Your task to perform on an android device: turn on the 24-hour format for clock Image 0: 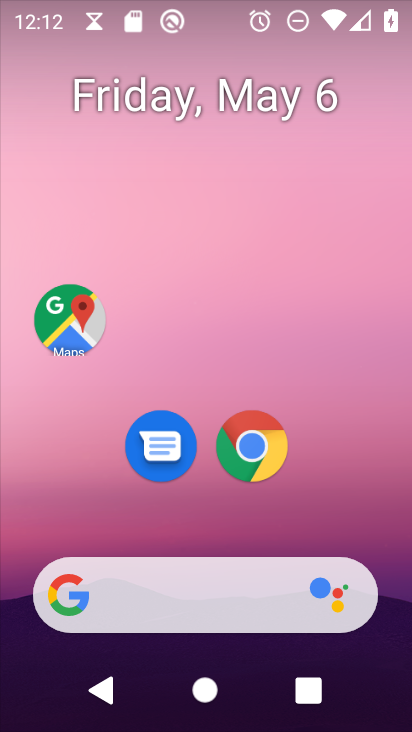
Step 0: drag from (212, 640) to (259, 201)
Your task to perform on an android device: turn on the 24-hour format for clock Image 1: 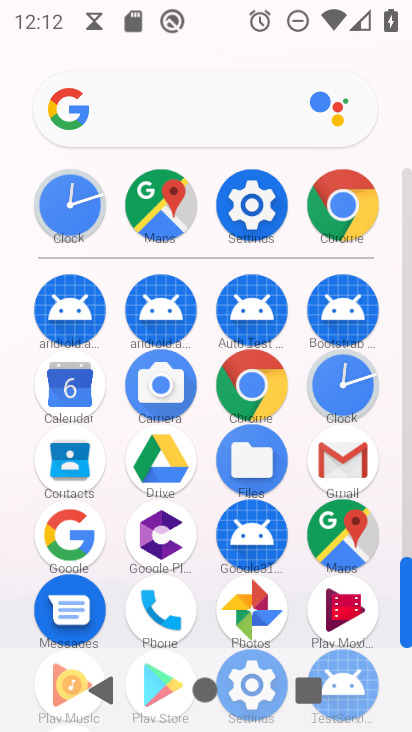
Step 1: click (350, 381)
Your task to perform on an android device: turn on the 24-hour format for clock Image 2: 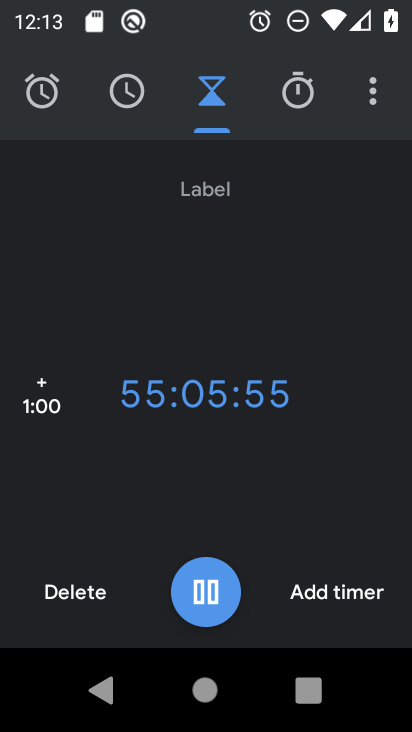
Step 2: click (374, 105)
Your task to perform on an android device: turn on the 24-hour format for clock Image 3: 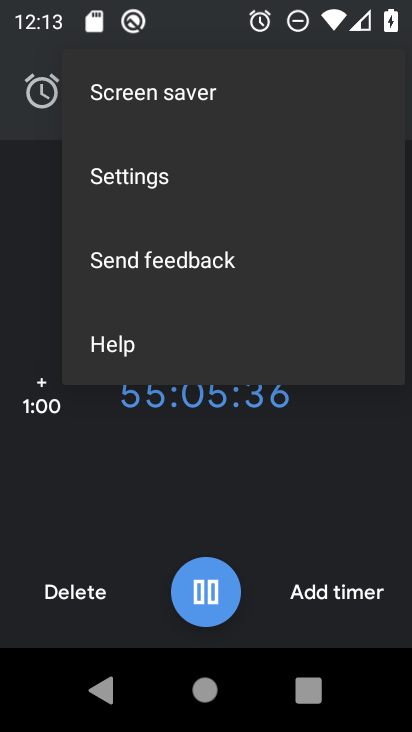
Step 3: click (208, 187)
Your task to perform on an android device: turn on the 24-hour format for clock Image 4: 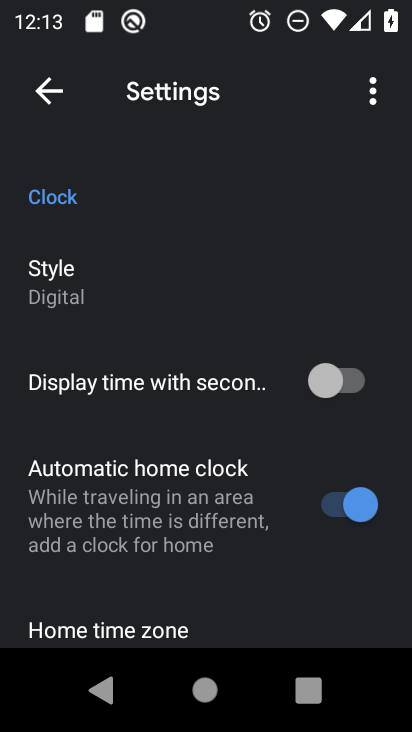
Step 4: drag from (141, 529) to (232, 219)
Your task to perform on an android device: turn on the 24-hour format for clock Image 5: 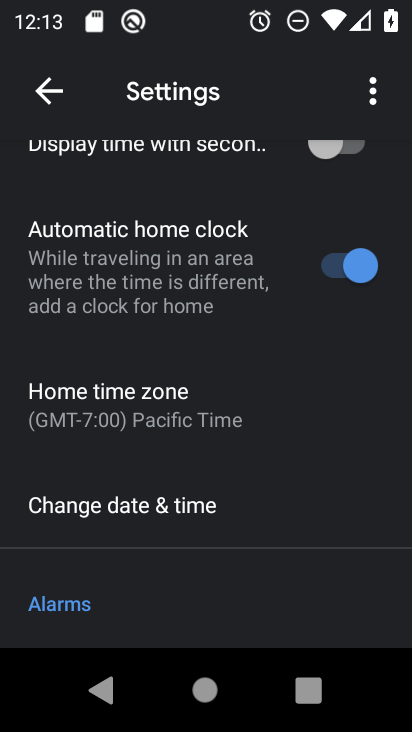
Step 5: click (212, 508)
Your task to perform on an android device: turn on the 24-hour format for clock Image 6: 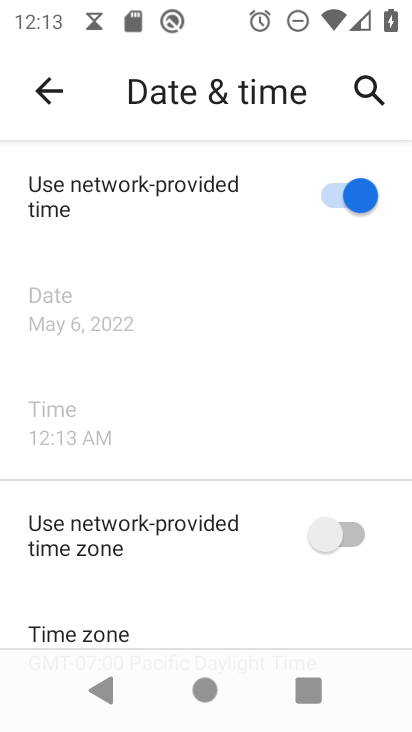
Step 6: drag from (165, 560) to (181, 421)
Your task to perform on an android device: turn on the 24-hour format for clock Image 7: 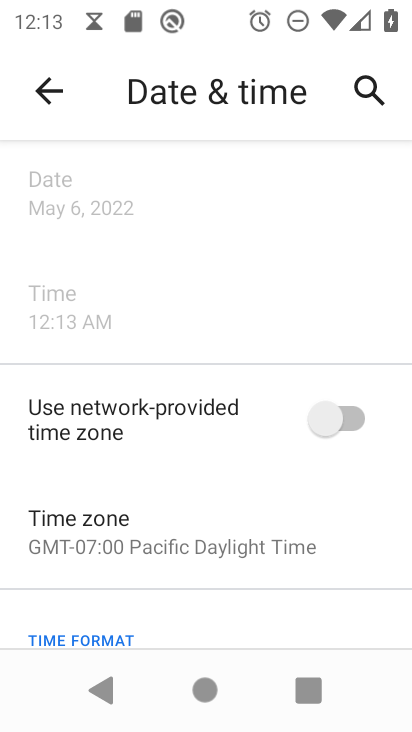
Step 7: drag from (276, 444) to (226, 248)
Your task to perform on an android device: turn on the 24-hour format for clock Image 8: 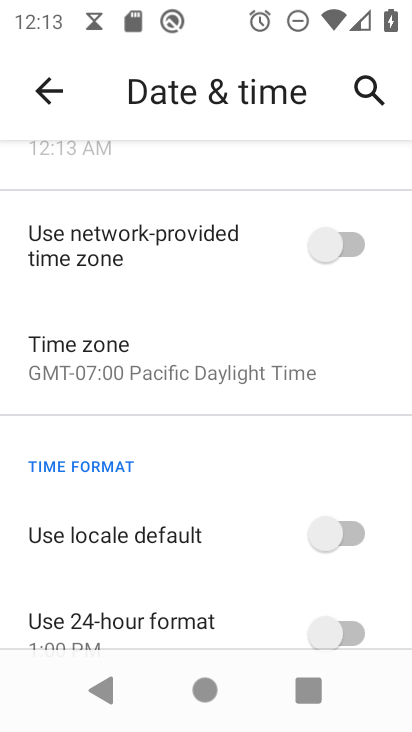
Step 8: drag from (291, 538) to (291, 396)
Your task to perform on an android device: turn on the 24-hour format for clock Image 9: 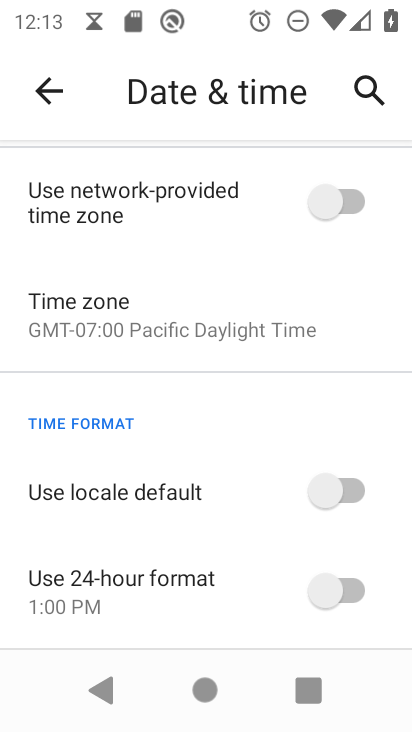
Step 9: click (347, 594)
Your task to perform on an android device: turn on the 24-hour format for clock Image 10: 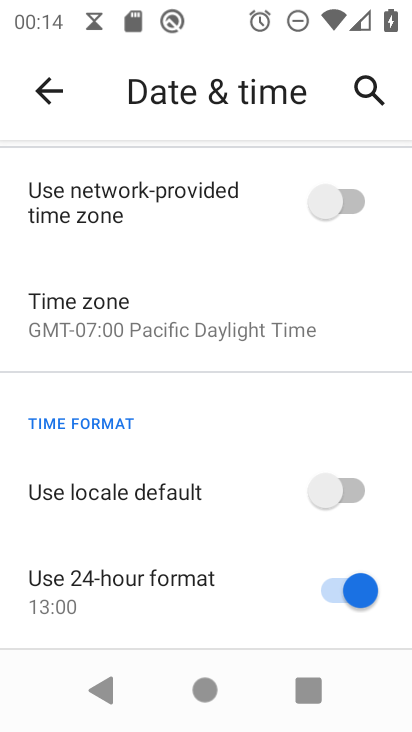
Step 10: task complete